Your task to perform on an android device: create a new album in the google photos Image 0: 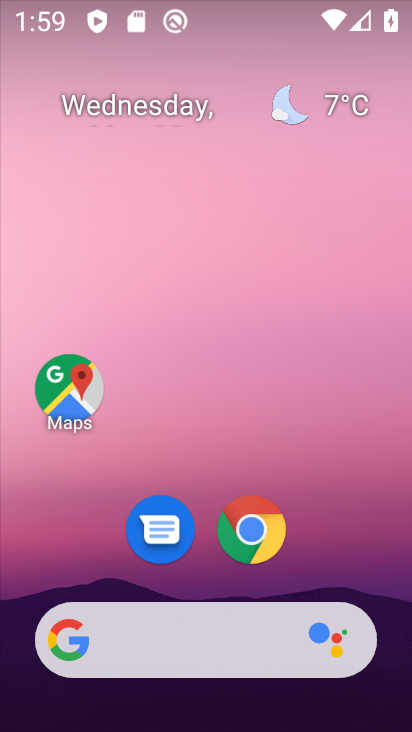
Step 0: drag from (84, 432) to (312, 48)
Your task to perform on an android device: create a new album in the google photos Image 1: 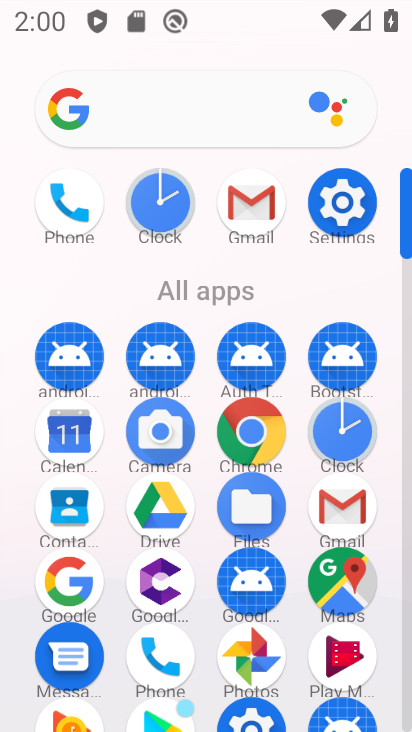
Step 1: click (240, 645)
Your task to perform on an android device: create a new album in the google photos Image 2: 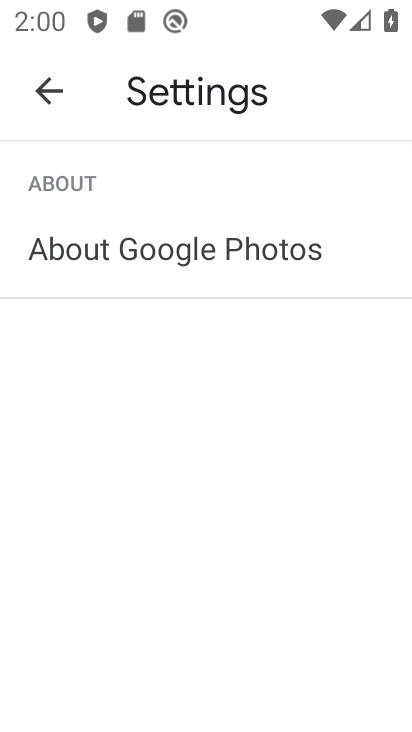
Step 2: click (47, 87)
Your task to perform on an android device: create a new album in the google photos Image 3: 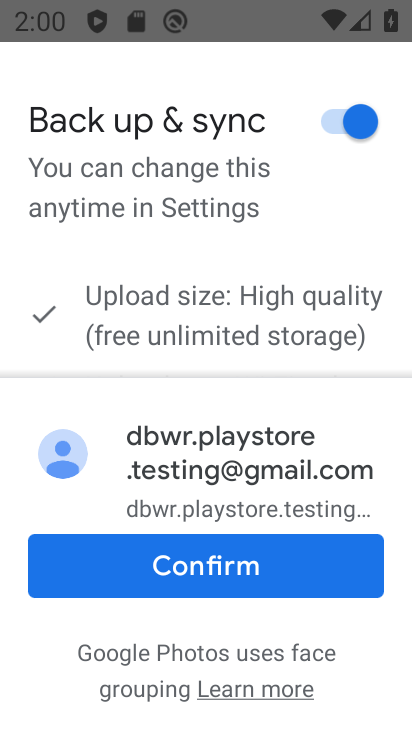
Step 3: click (272, 565)
Your task to perform on an android device: create a new album in the google photos Image 4: 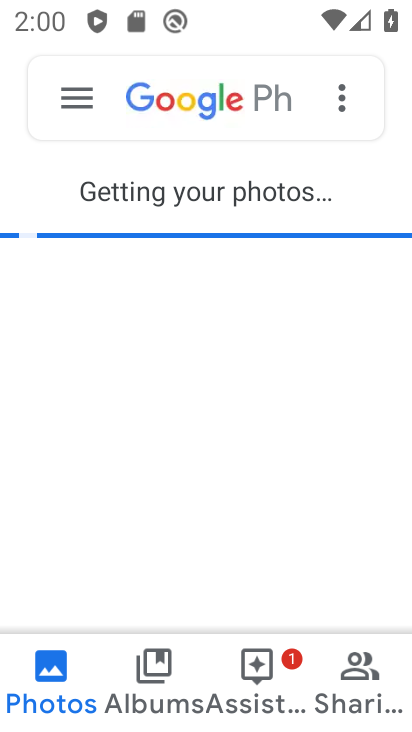
Step 4: click (345, 102)
Your task to perform on an android device: create a new album in the google photos Image 5: 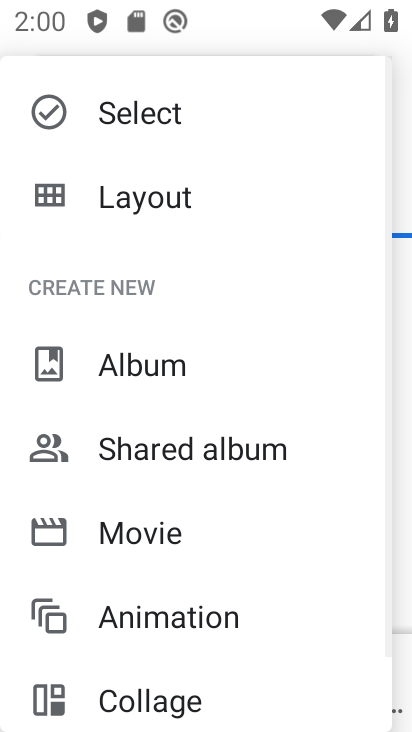
Step 5: click (135, 364)
Your task to perform on an android device: create a new album in the google photos Image 6: 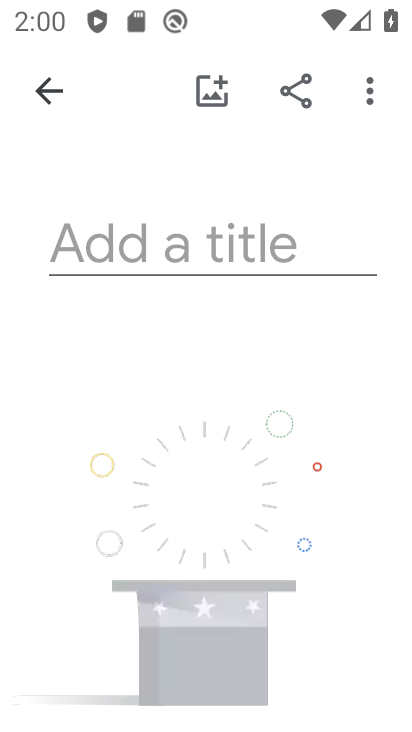
Step 6: click (359, 94)
Your task to perform on an android device: create a new album in the google photos Image 7: 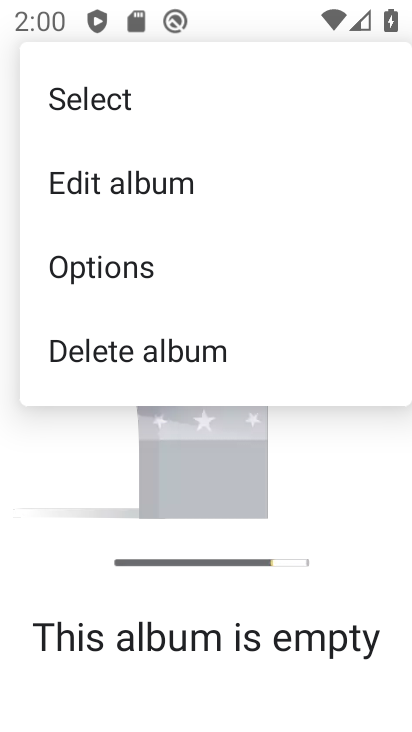
Step 7: click (120, 101)
Your task to perform on an android device: create a new album in the google photos Image 8: 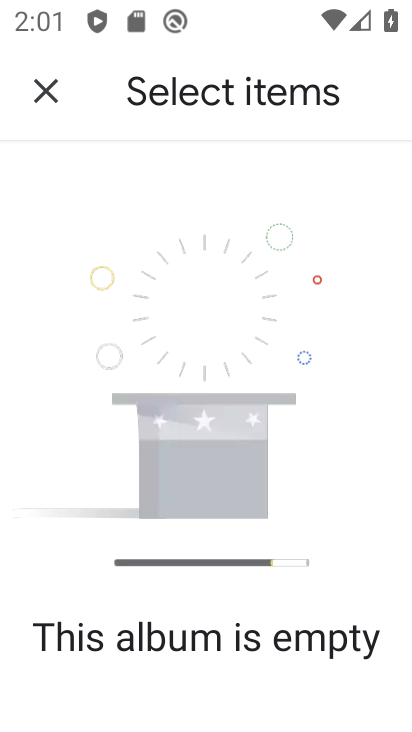
Step 8: click (45, 90)
Your task to perform on an android device: create a new album in the google photos Image 9: 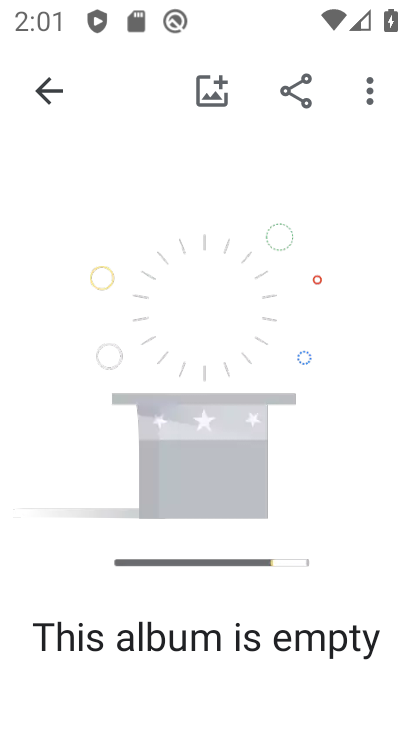
Step 9: click (204, 98)
Your task to perform on an android device: create a new album in the google photos Image 10: 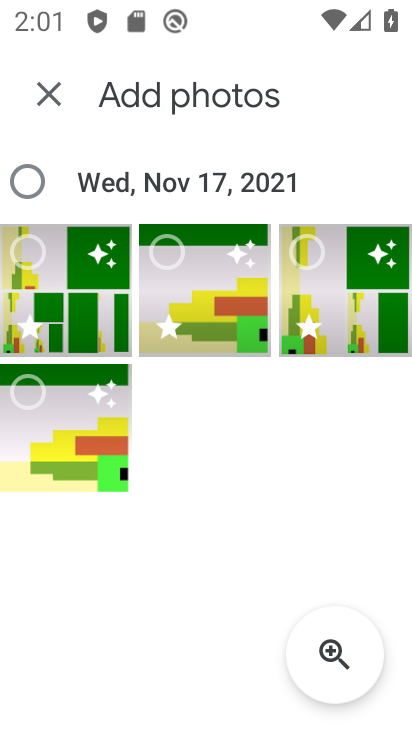
Step 10: click (15, 252)
Your task to perform on an android device: create a new album in the google photos Image 11: 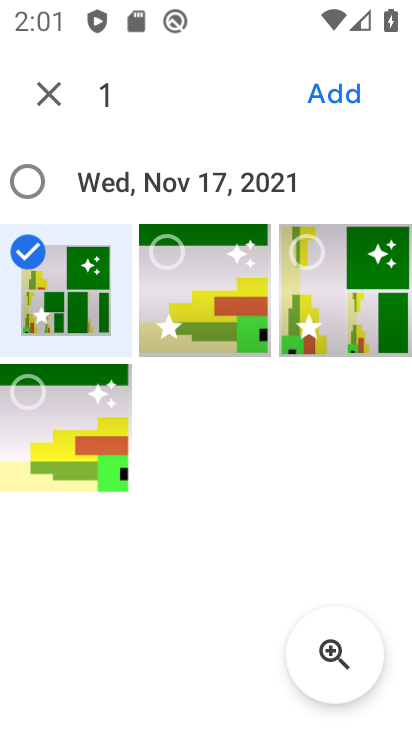
Step 11: click (332, 84)
Your task to perform on an android device: create a new album in the google photos Image 12: 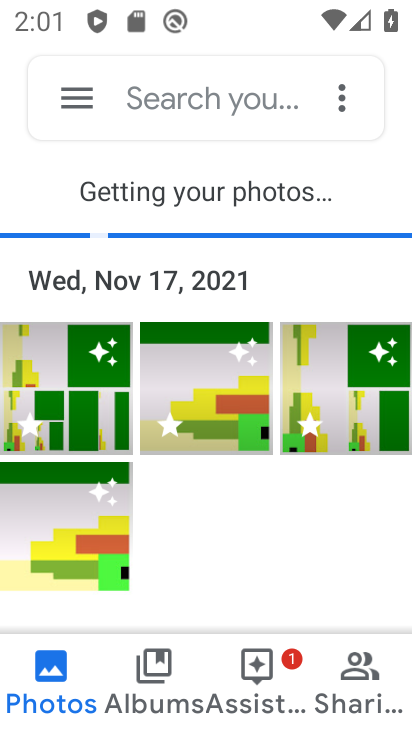
Step 12: click (343, 95)
Your task to perform on an android device: create a new album in the google photos Image 13: 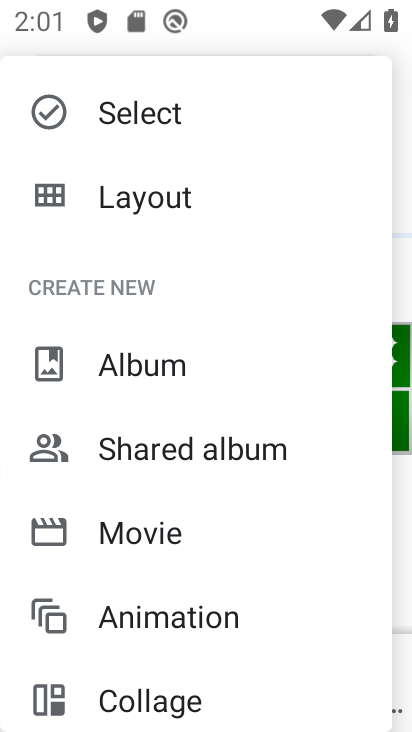
Step 13: click (154, 381)
Your task to perform on an android device: create a new album in the google photos Image 14: 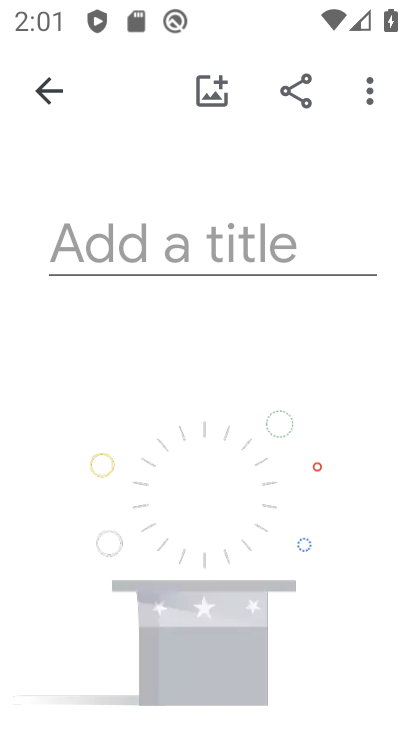
Step 14: click (249, 246)
Your task to perform on an android device: create a new album in the google photos Image 15: 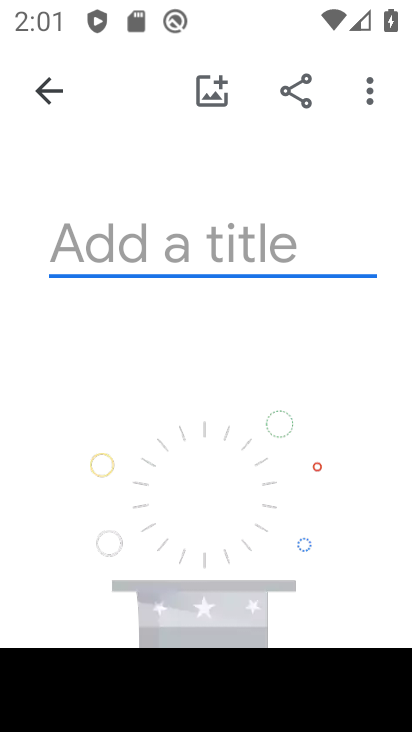
Step 15: type "yyryryr"
Your task to perform on an android device: create a new album in the google photos Image 16: 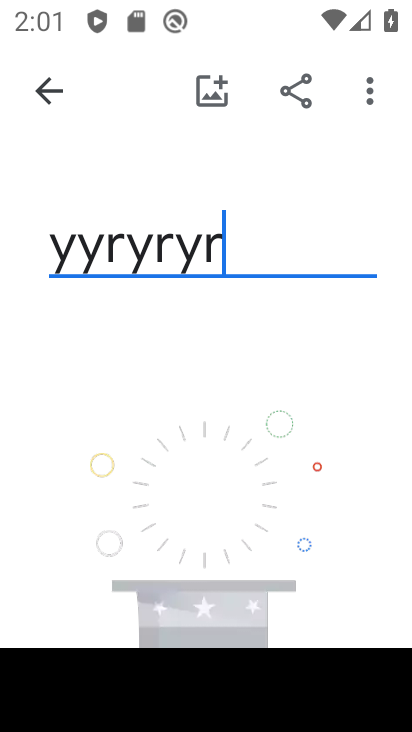
Step 16: type ""
Your task to perform on an android device: create a new album in the google photos Image 17: 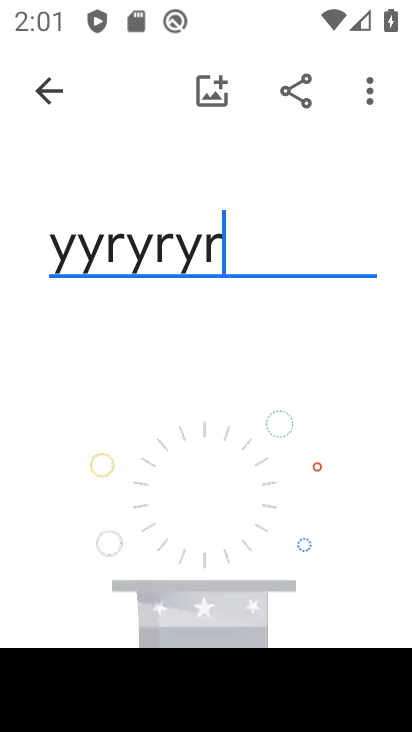
Step 17: click (367, 105)
Your task to perform on an android device: create a new album in the google photos Image 18: 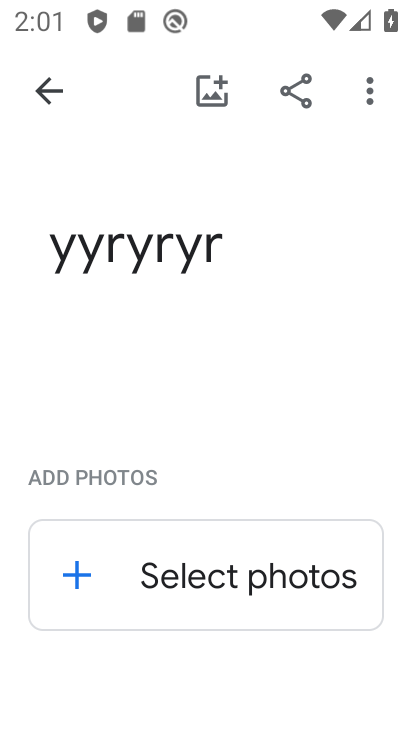
Step 18: click (131, 573)
Your task to perform on an android device: create a new album in the google photos Image 19: 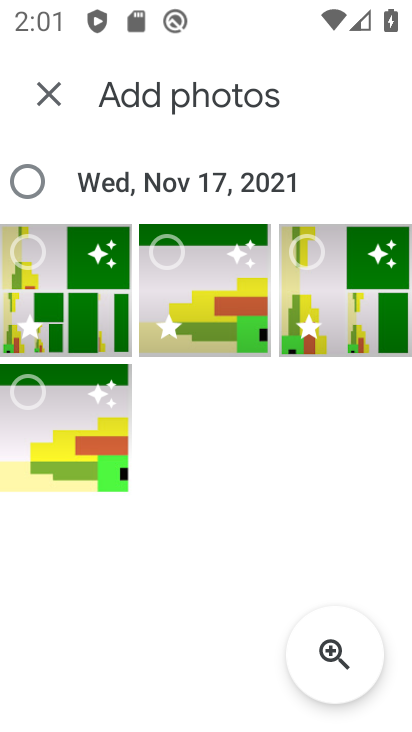
Step 19: click (181, 259)
Your task to perform on an android device: create a new album in the google photos Image 20: 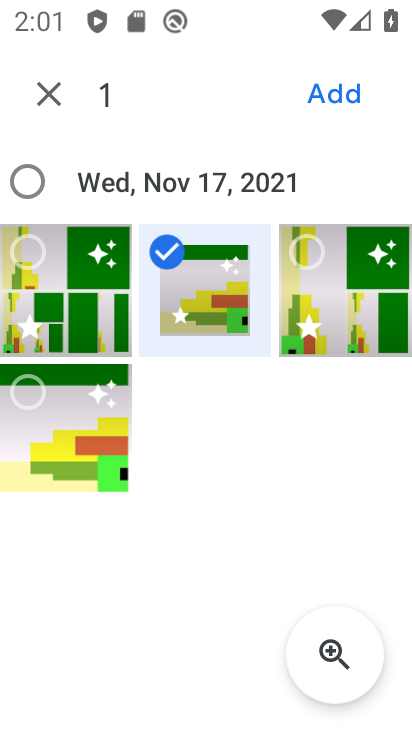
Step 20: click (315, 86)
Your task to perform on an android device: create a new album in the google photos Image 21: 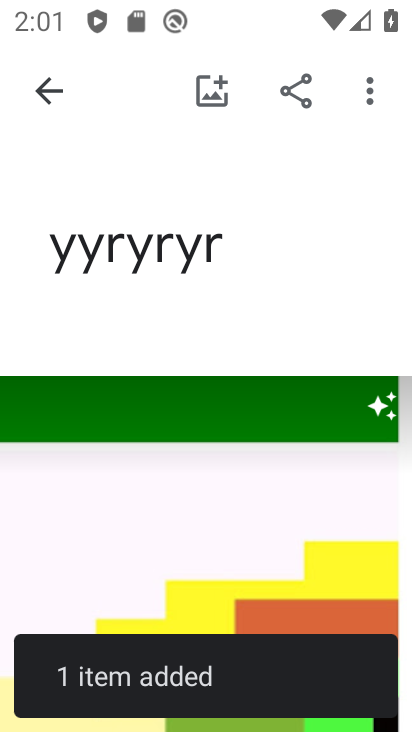
Step 21: task complete